Your task to perform on an android device: Open Google Maps and go to "Timeline" Image 0: 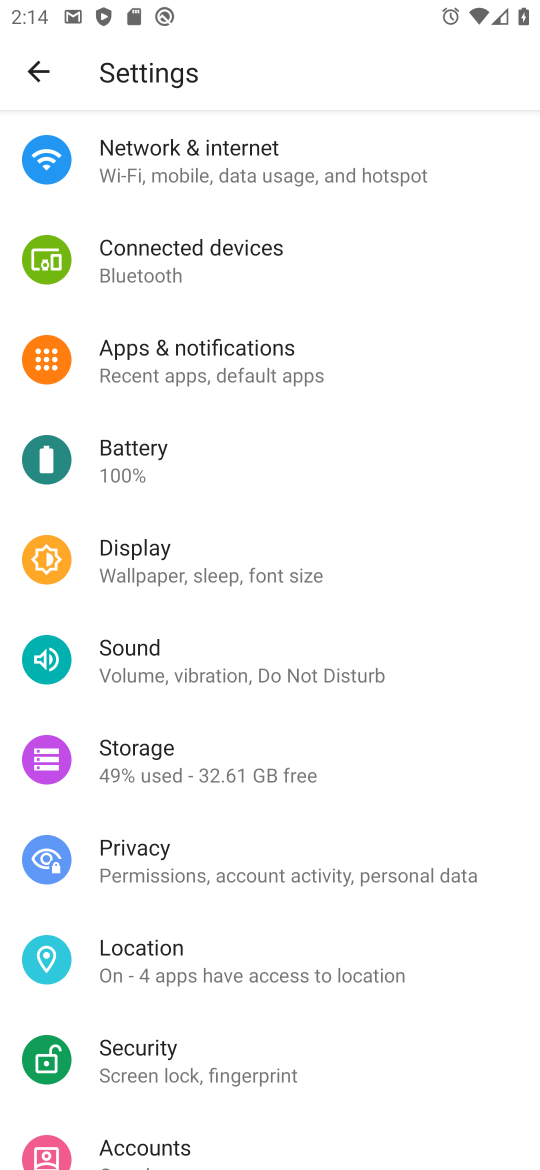
Step 0: press home button
Your task to perform on an android device: Open Google Maps and go to "Timeline" Image 1: 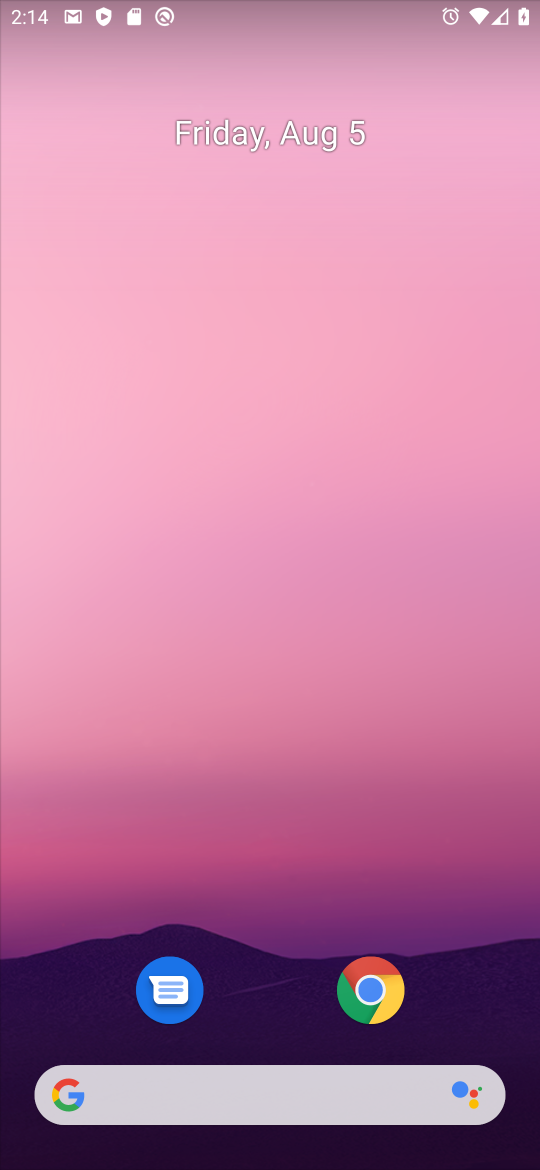
Step 1: drag from (202, 1090) to (319, 26)
Your task to perform on an android device: Open Google Maps and go to "Timeline" Image 2: 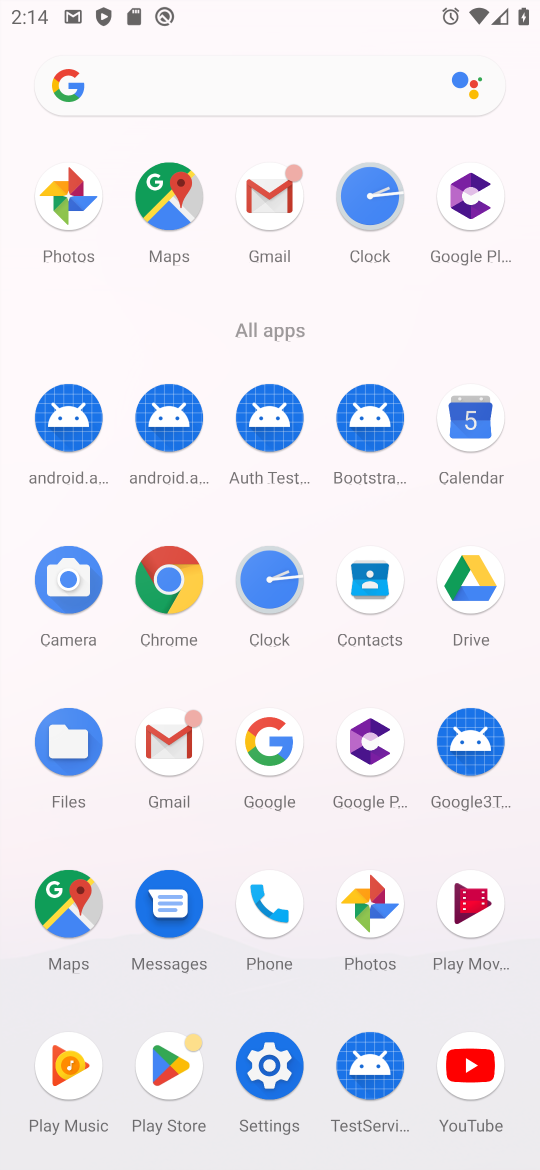
Step 2: click (79, 896)
Your task to perform on an android device: Open Google Maps and go to "Timeline" Image 3: 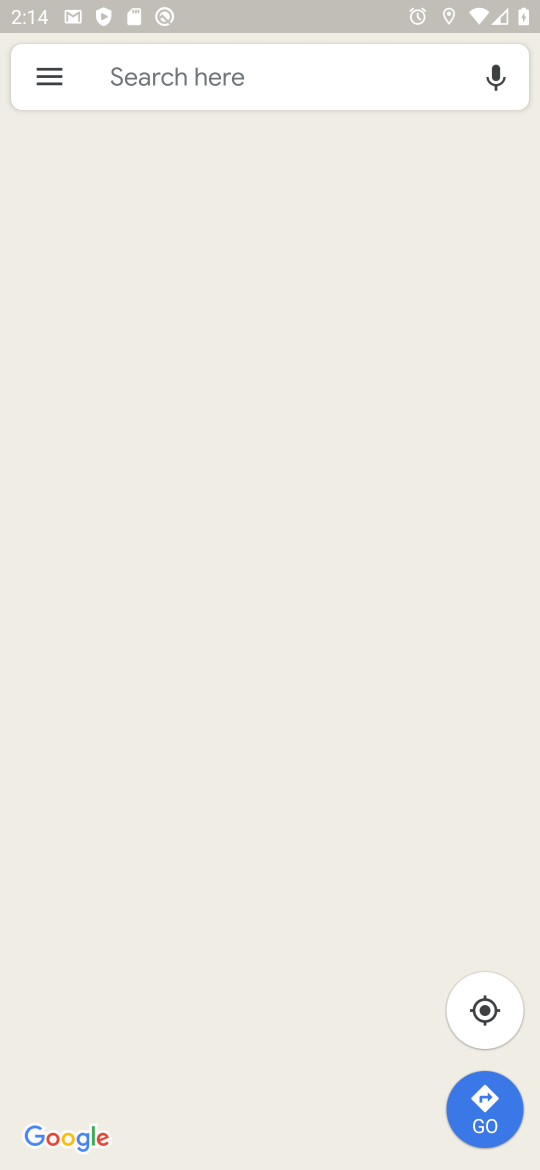
Step 3: click (54, 73)
Your task to perform on an android device: Open Google Maps and go to "Timeline" Image 4: 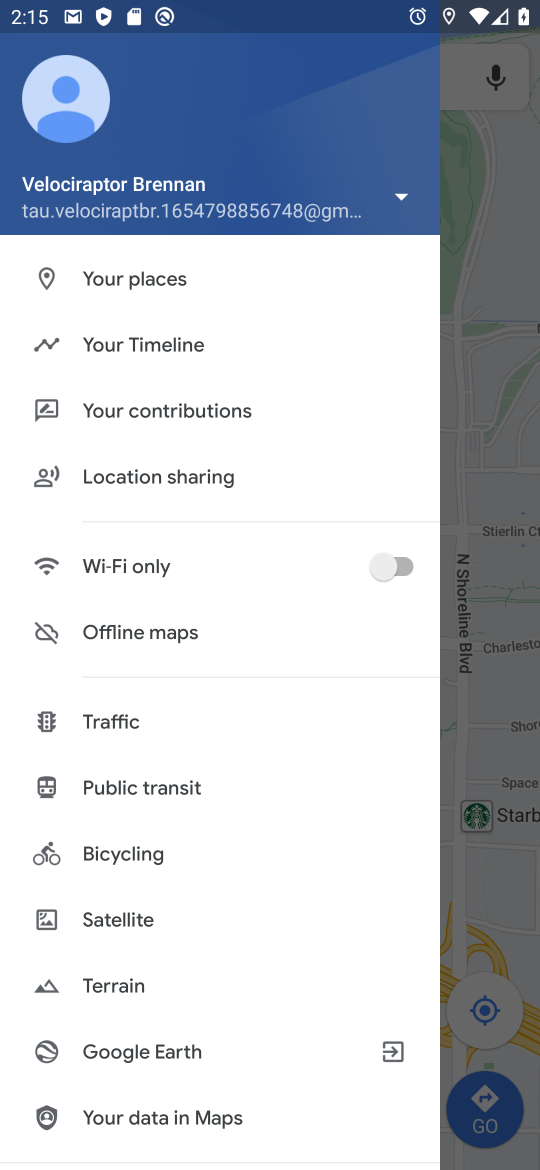
Step 4: click (138, 358)
Your task to perform on an android device: Open Google Maps and go to "Timeline" Image 5: 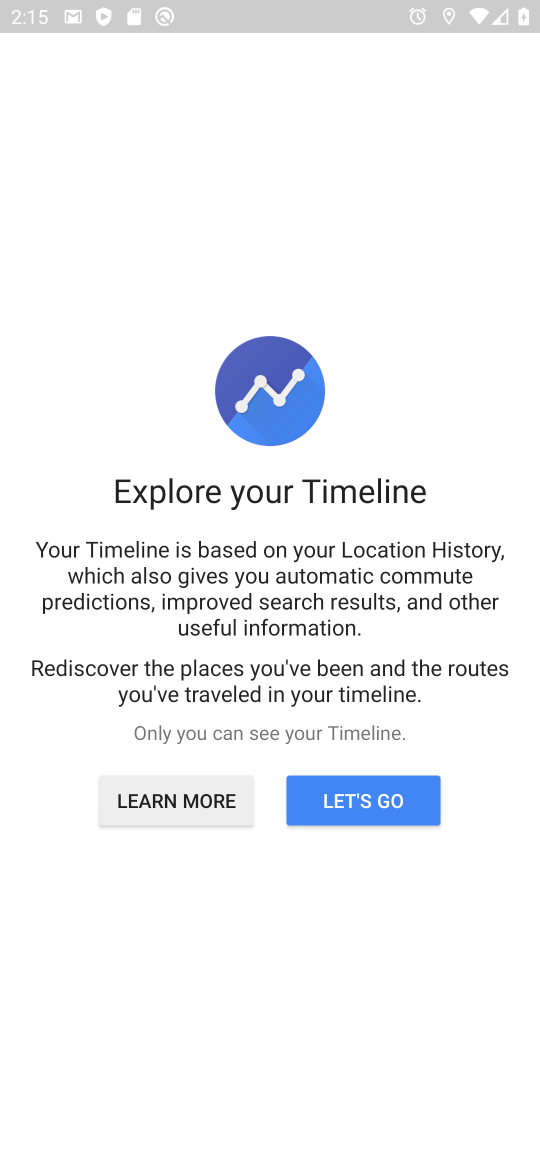
Step 5: task complete